Your task to perform on an android device: toggle data saver in the chrome app Image 0: 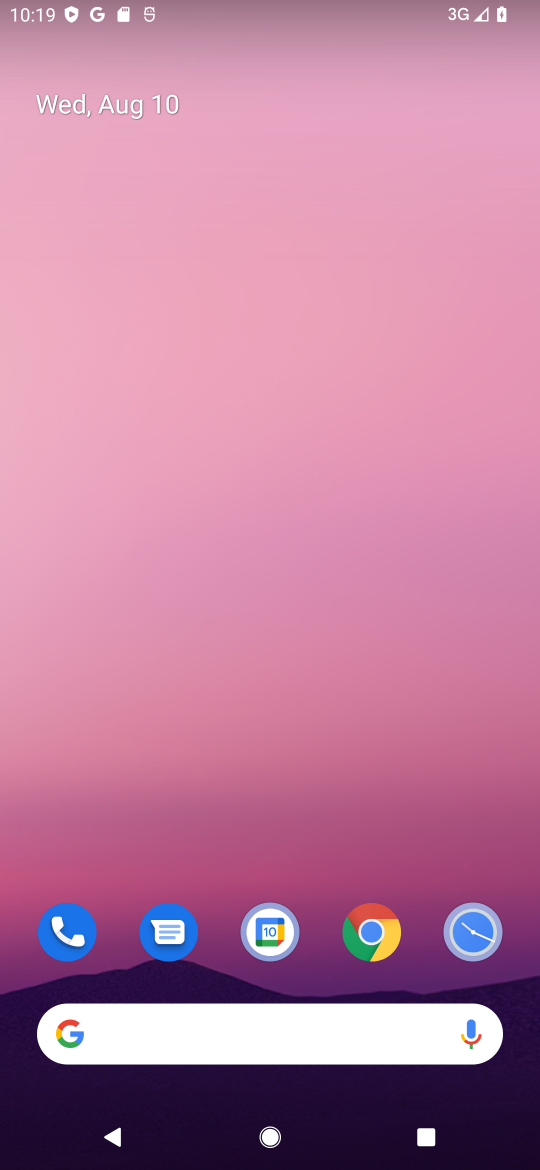
Step 0: click (378, 930)
Your task to perform on an android device: toggle data saver in the chrome app Image 1: 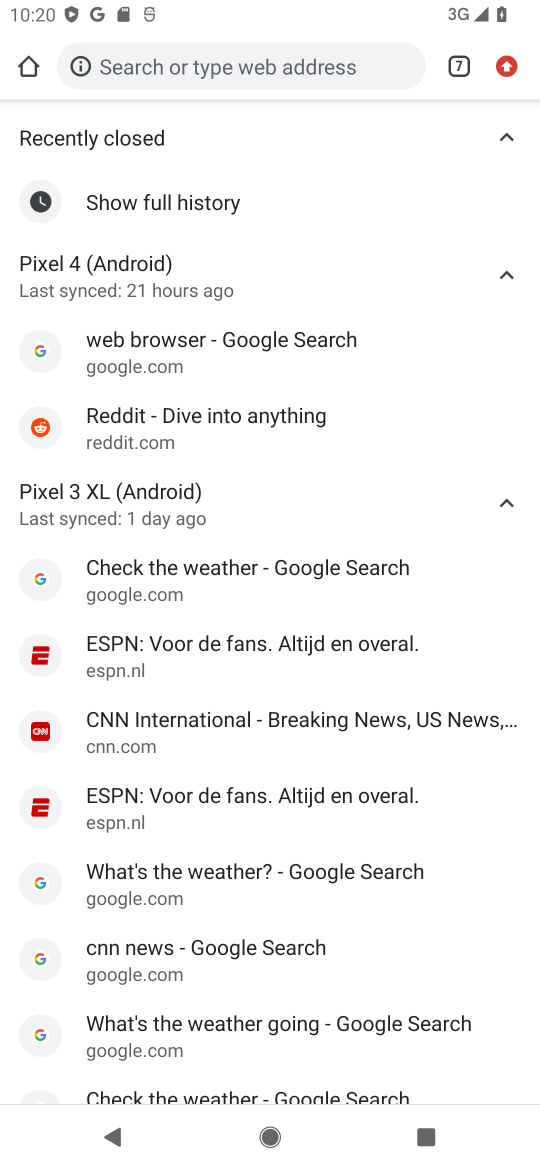
Step 1: click (506, 71)
Your task to perform on an android device: toggle data saver in the chrome app Image 2: 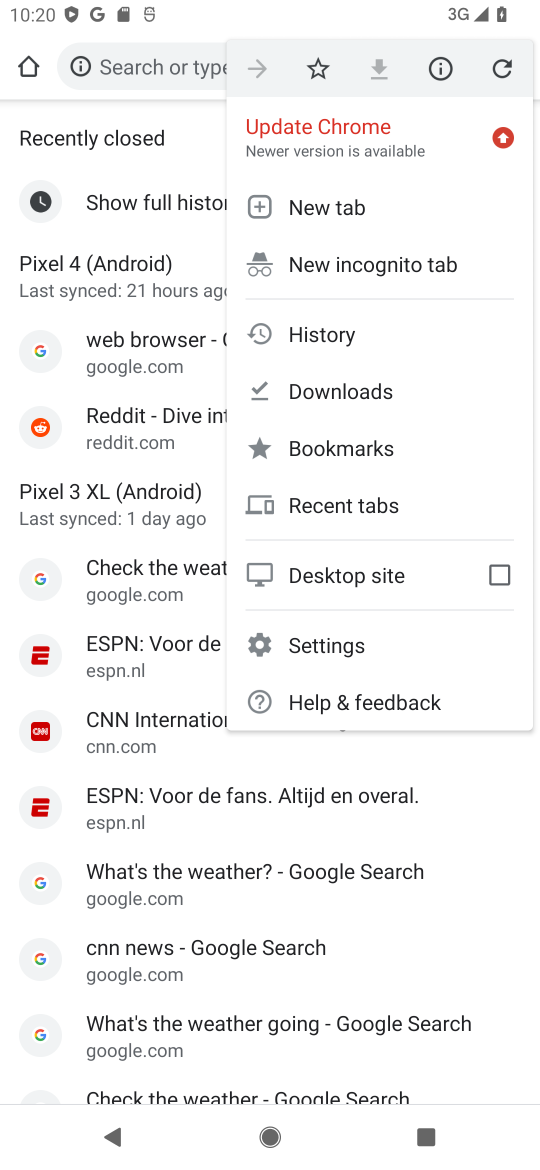
Step 2: click (319, 643)
Your task to perform on an android device: toggle data saver in the chrome app Image 3: 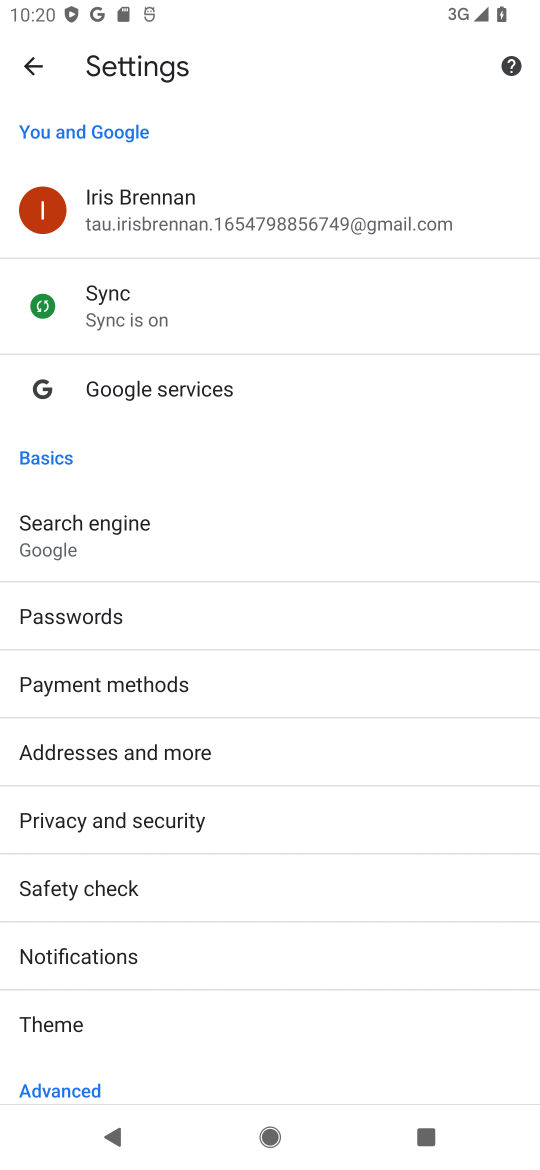
Step 3: drag from (228, 1018) to (260, 378)
Your task to perform on an android device: toggle data saver in the chrome app Image 4: 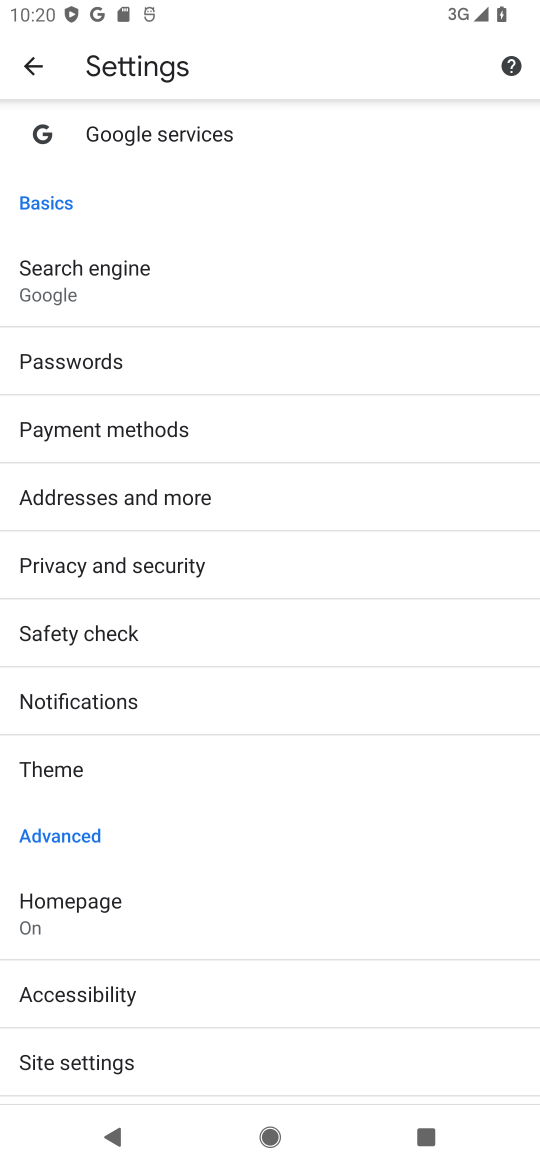
Step 4: drag from (166, 981) to (187, 734)
Your task to perform on an android device: toggle data saver in the chrome app Image 5: 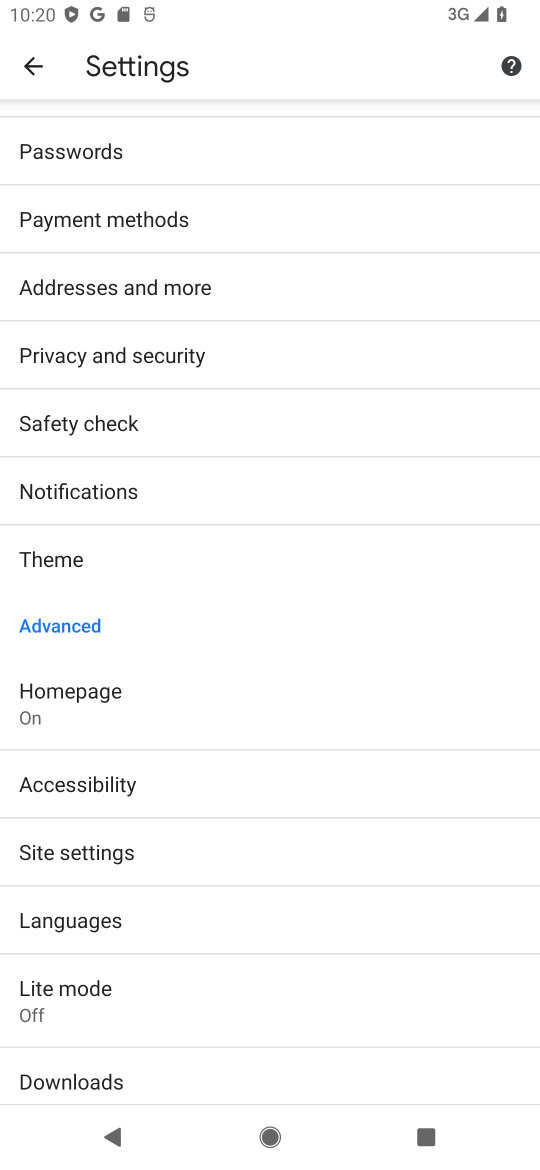
Step 5: click (74, 985)
Your task to perform on an android device: toggle data saver in the chrome app Image 6: 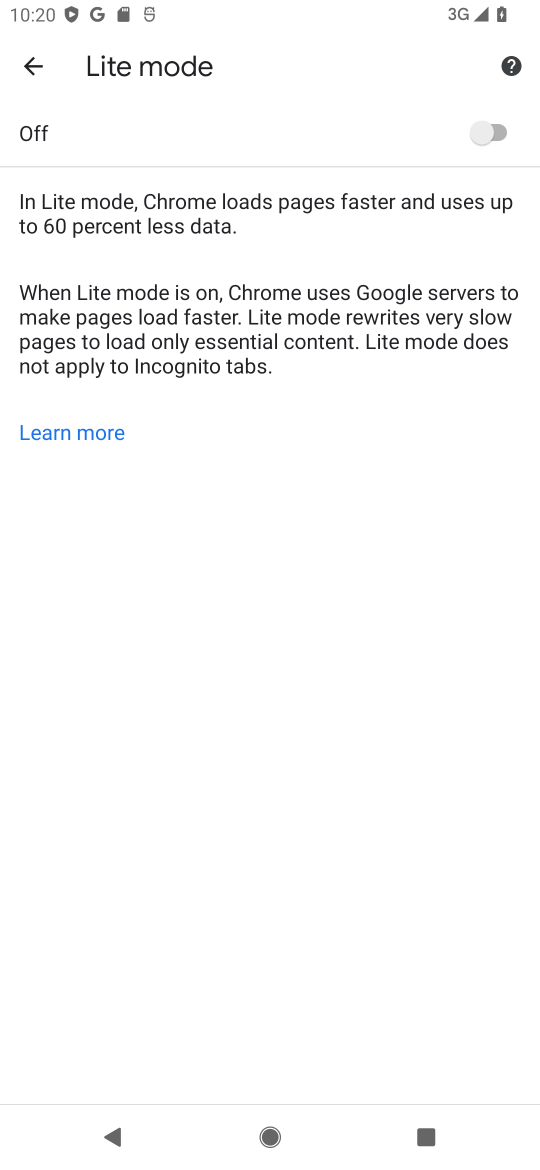
Step 6: click (488, 126)
Your task to perform on an android device: toggle data saver in the chrome app Image 7: 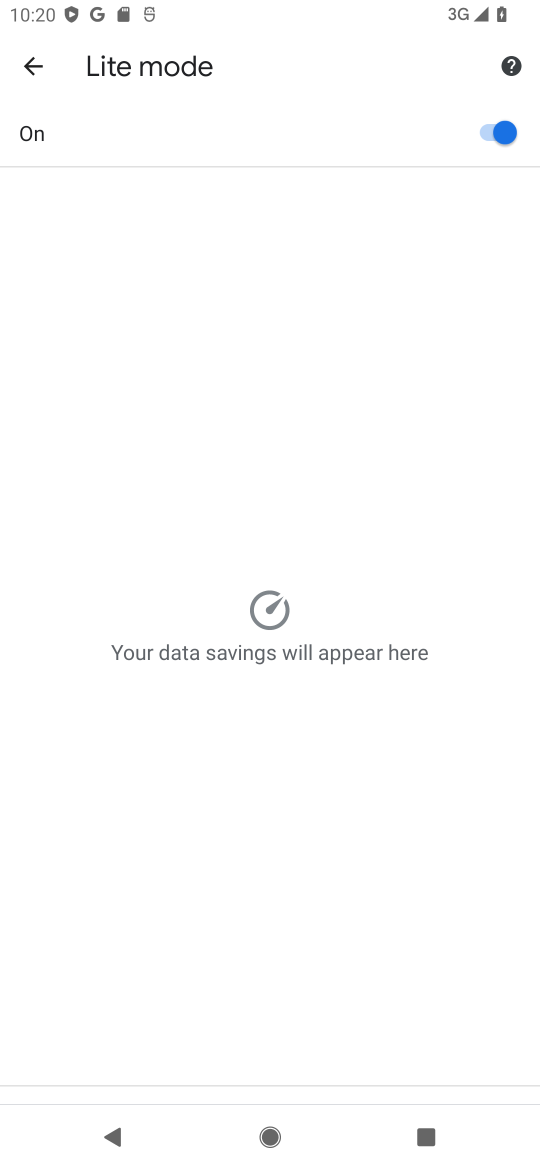
Step 7: task complete